Your task to perform on an android device: Open Chrome and go to settings Image 0: 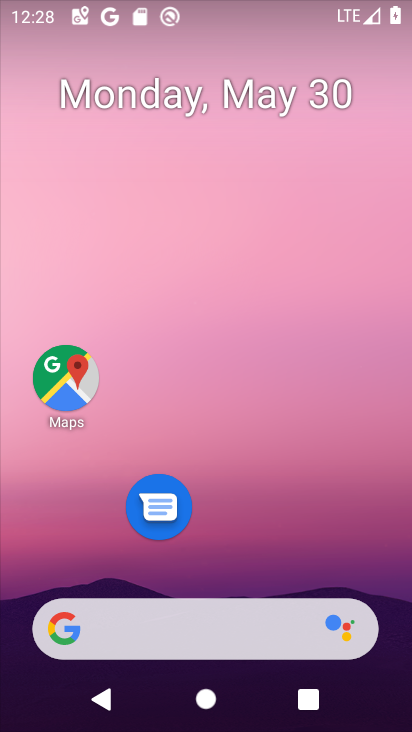
Step 0: drag from (261, 552) to (281, 68)
Your task to perform on an android device: Open Chrome and go to settings Image 1: 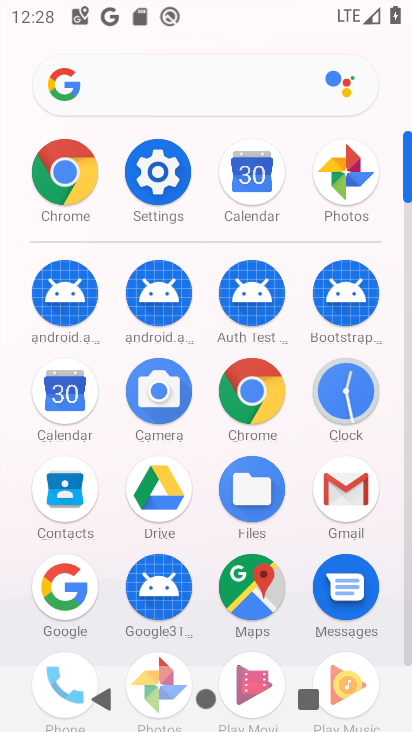
Step 1: click (256, 397)
Your task to perform on an android device: Open Chrome and go to settings Image 2: 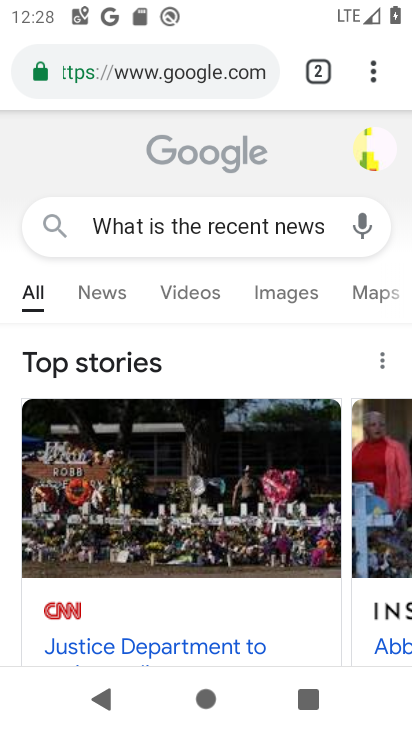
Step 2: task complete